Your task to perform on an android device: turn on sleep mode Image 0: 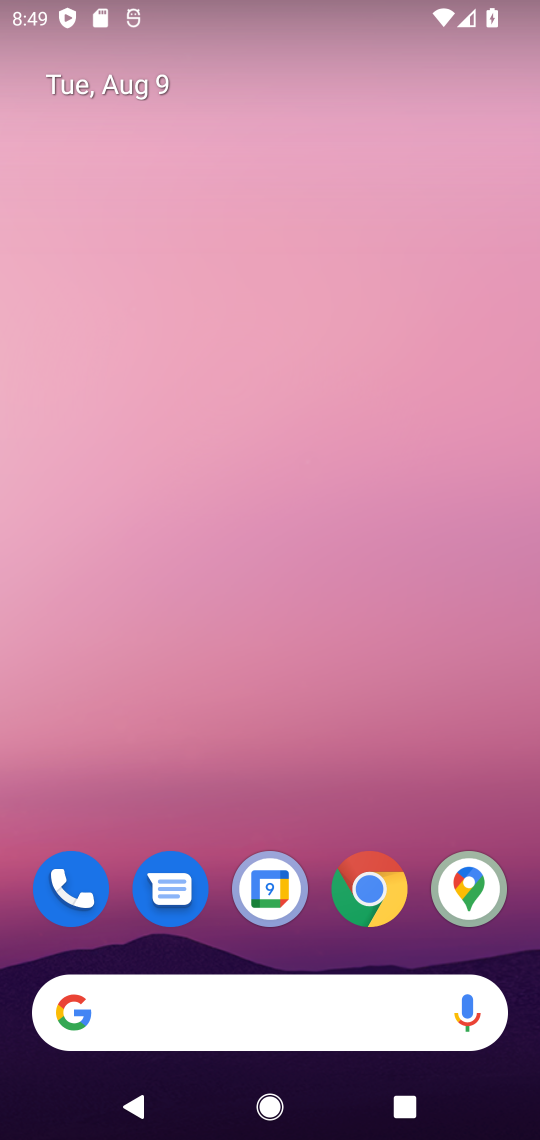
Step 0: drag from (130, 1008) to (223, 57)
Your task to perform on an android device: turn on sleep mode Image 1: 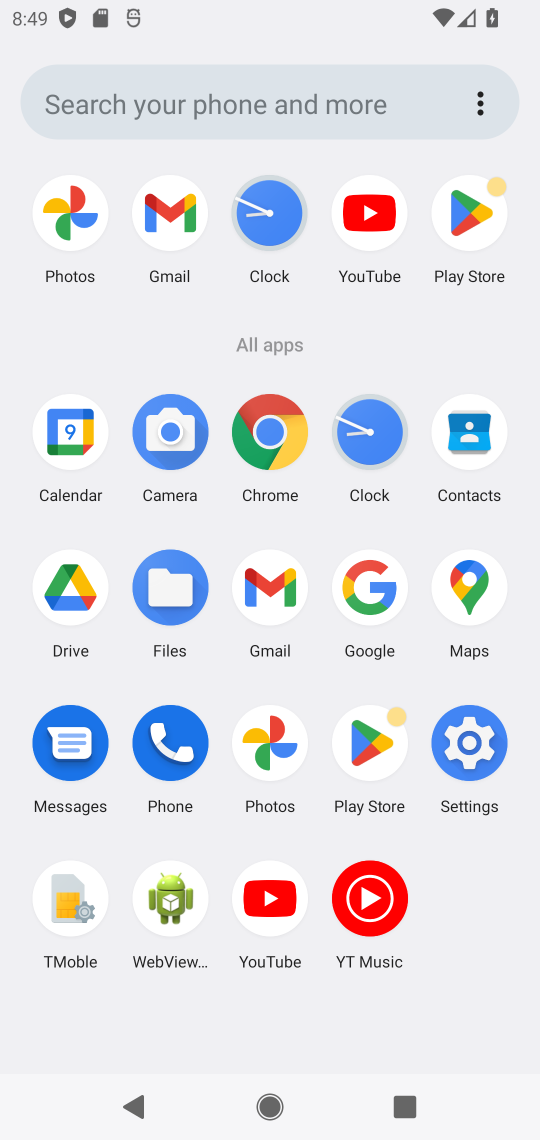
Step 1: click (455, 761)
Your task to perform on an android device: turn on sleep mode Image 2: 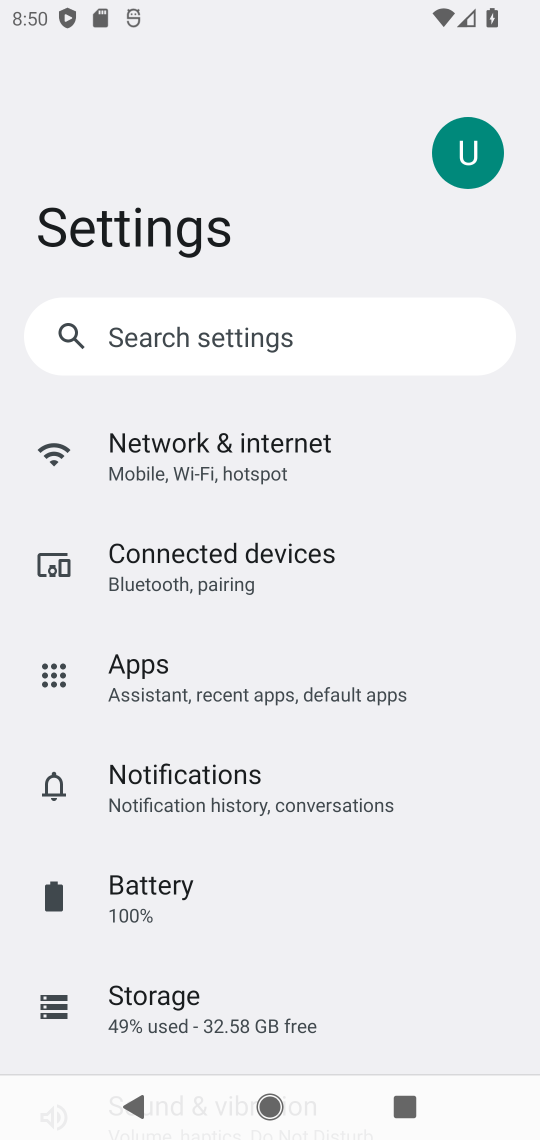
Step 2: drag from (199, 992) to (347, 451)
Your task to perform on an android device: turn on sleep mode Image 3: 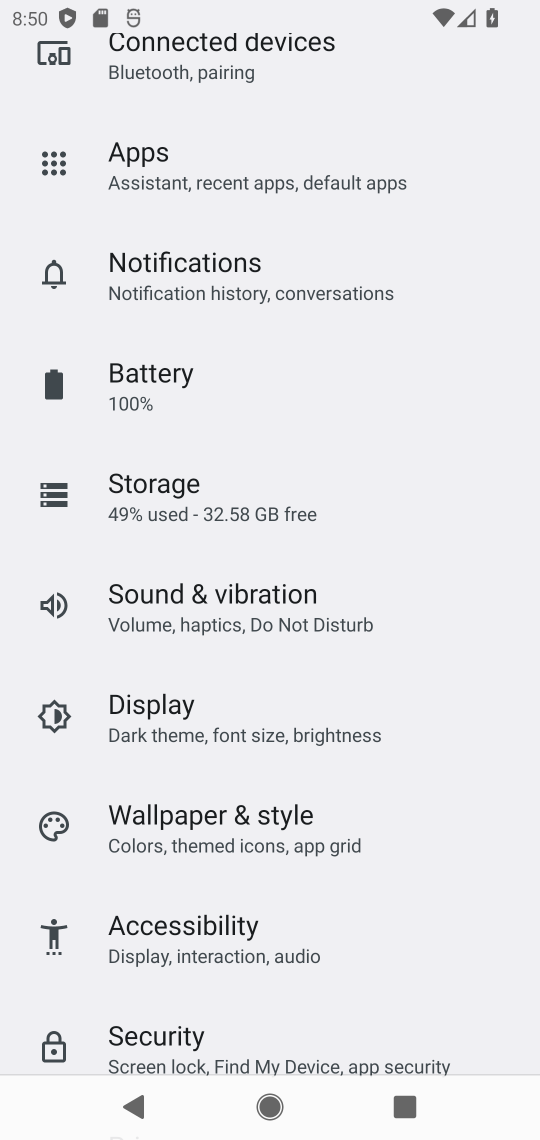
Step 3: click (127, 730)
Your task to perform on an android device: turn on sleep mode Image 4: 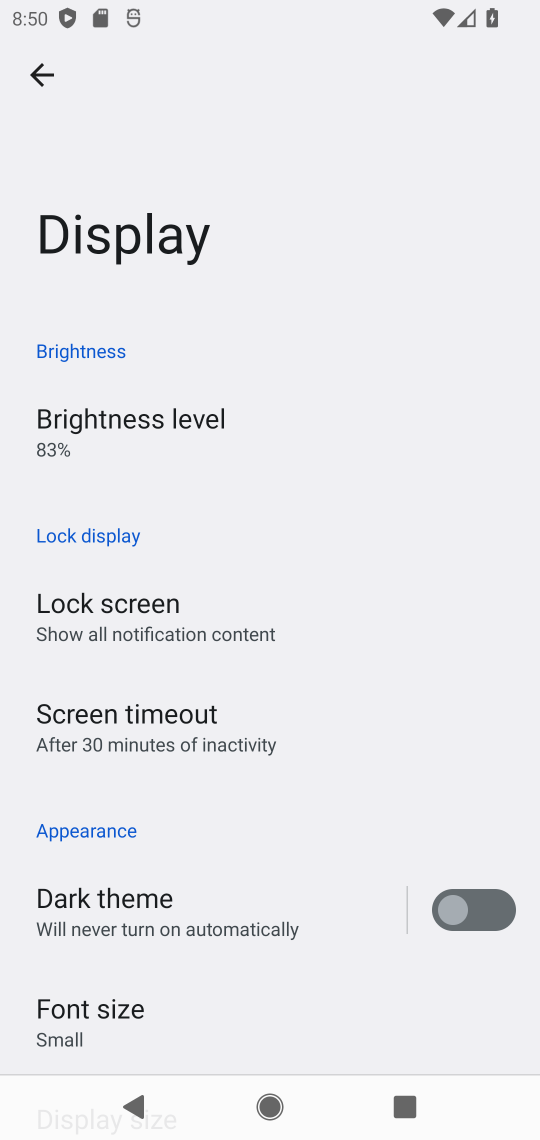
Step 4: click (127, 729)
Your task to perform on an android device: turn on sleep mode Image 5: 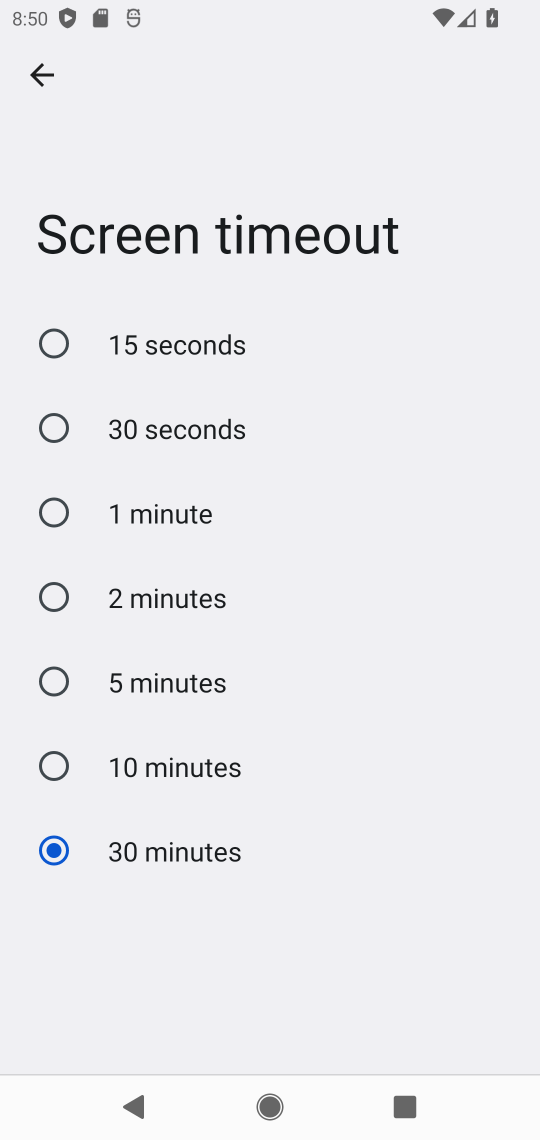
Step 5: task complete